Your task to perform on an android device: Go to notification settings Image 0: 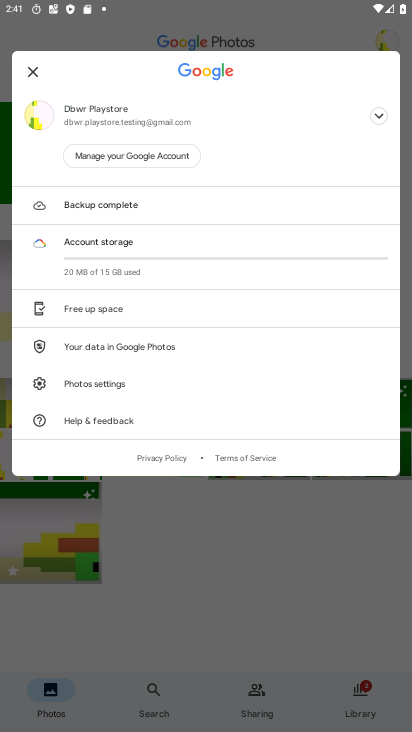
Step 0: task impossible